Your task to perform on an android device: Go to notification settings Image 0: 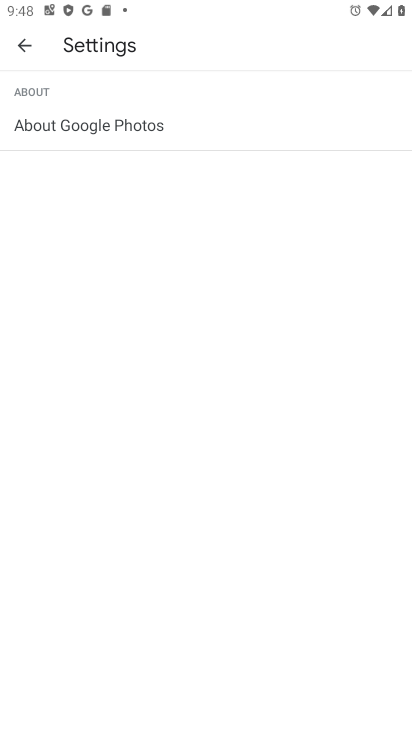
Step 0: press home button
Your task to perform on an android device: Go to notification settings Image 1: 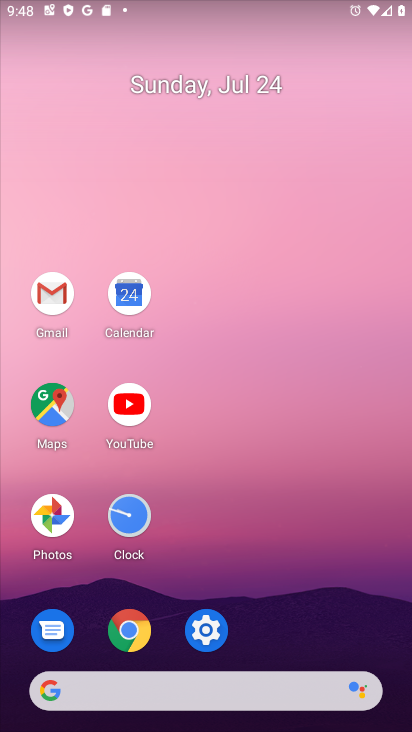
Step 1: click (208, 632)
Your task to perform on an android device: Go to notification settings Image 2: 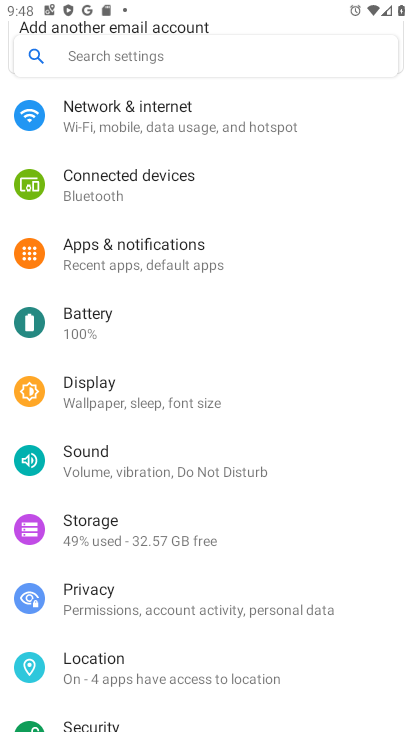
Step 2: click (140, 241)
Your task to perform on an android device: Go to notification settings Image 3: 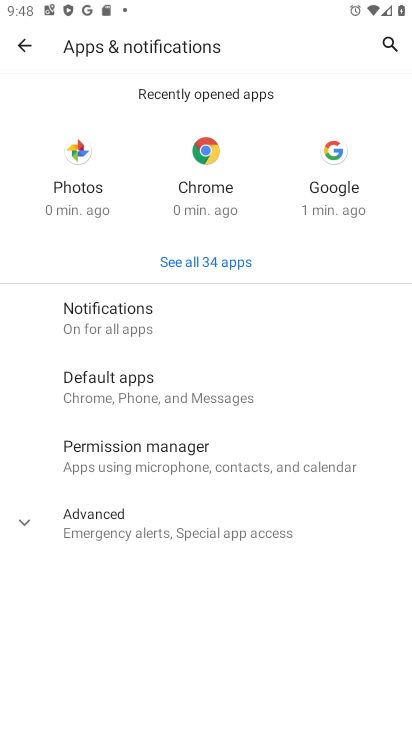
Step 3: task complete